Your task to perform on an android device: Go to Google maps Image 0: 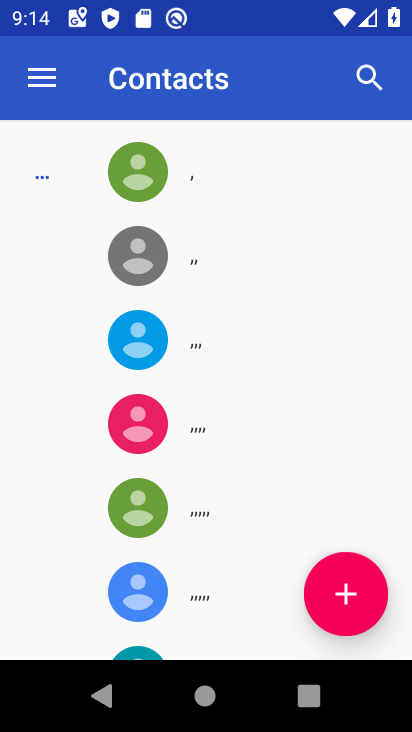
Step 0: press home button
Your task to perform on an android device: Go to Google maps Image 1: 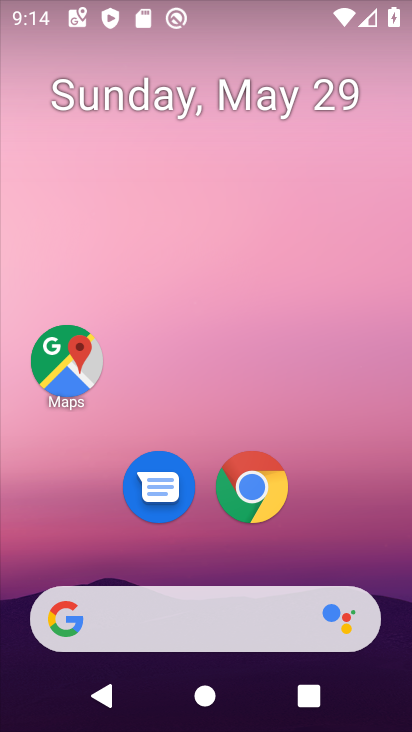
Step 1: click (52, 369)
Your task to perform on an android device: Go to Google maps Image 2: 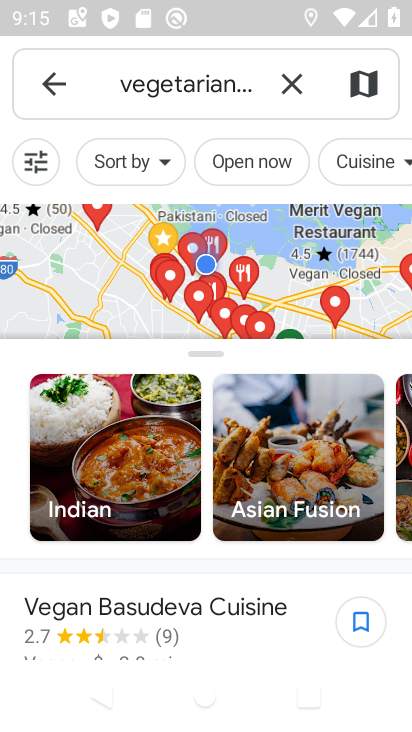
Step 2: task complete